Your task to perform on an android device: manage bookmarks in the chrome app Image 0: 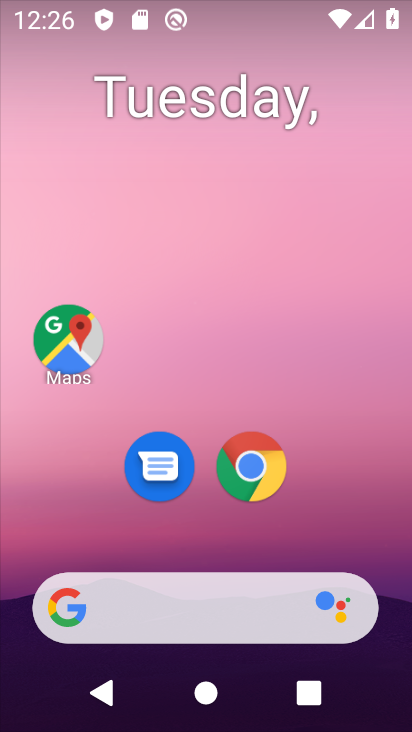
Step 0: drag from (391, 528) to (372, 183)
Your task to perform on an android device: manage bookmarks in the chrome app Image 1: 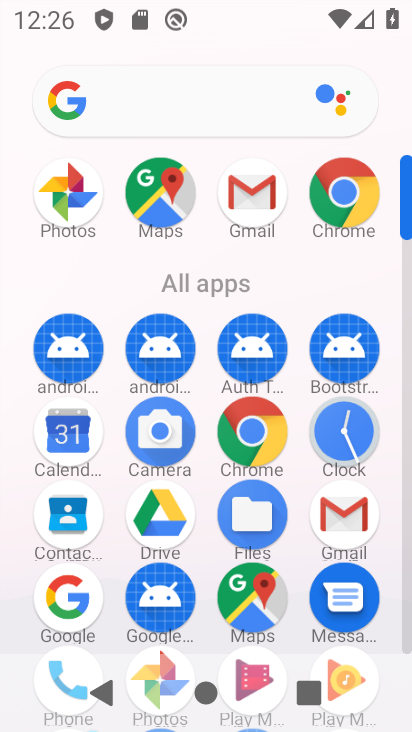
Step 1: click (273, 439)
Your task to perform on an android device: manage bookmarks in the chrome app Image 2: 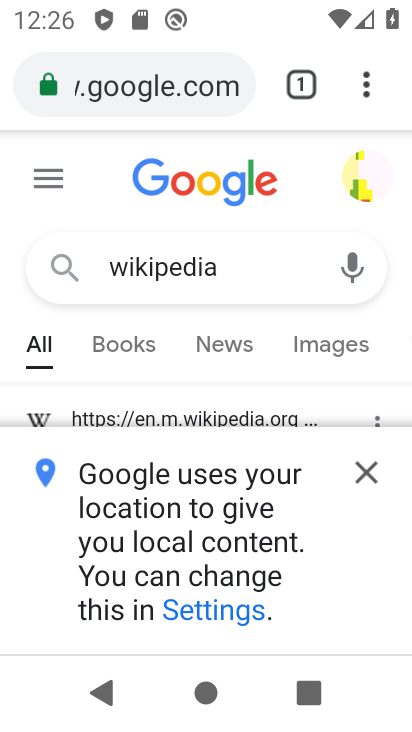
Step 2: click (366, 99)
Your task to perform on an android device: manage bookmarks in the chrome app Image 3: 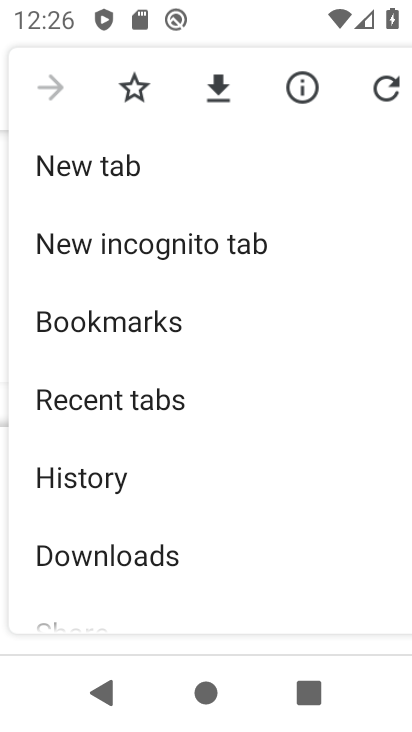
Step 3: click (202, 316)
Your task to perform on an android device: manage bookmarks in the chrome app Image 4: 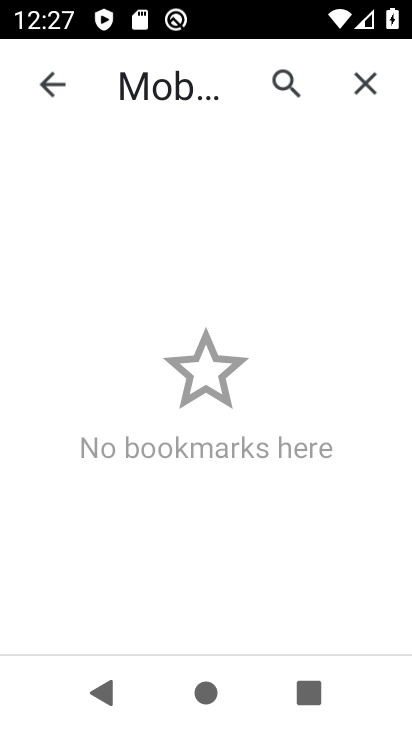
Step 4: task complete